Your task to perform on an android device: Go to location settings Image 0: 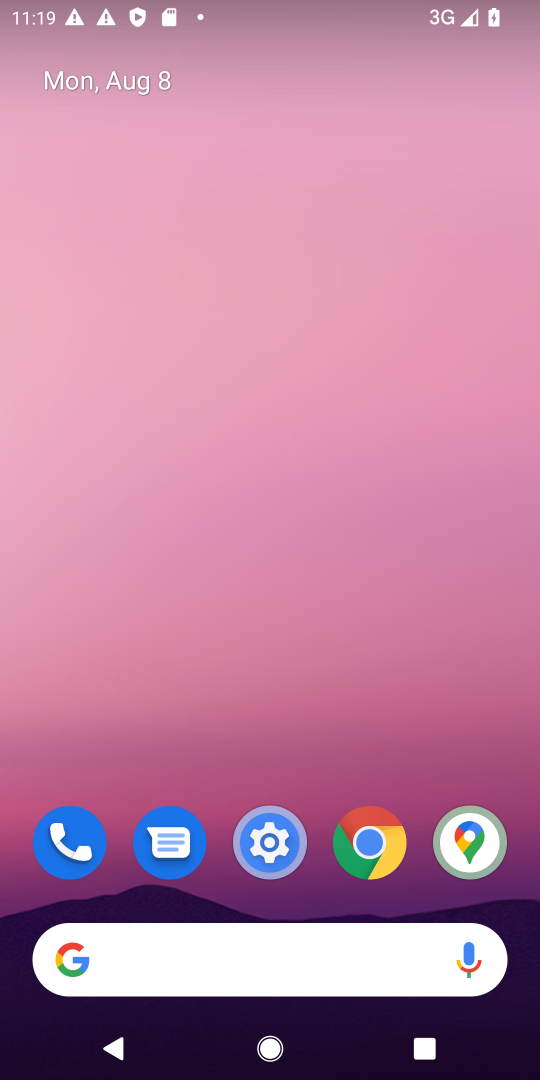
Step 0: click (254, 841)
Your task to perform on an android device: Go to location settings Image 1: 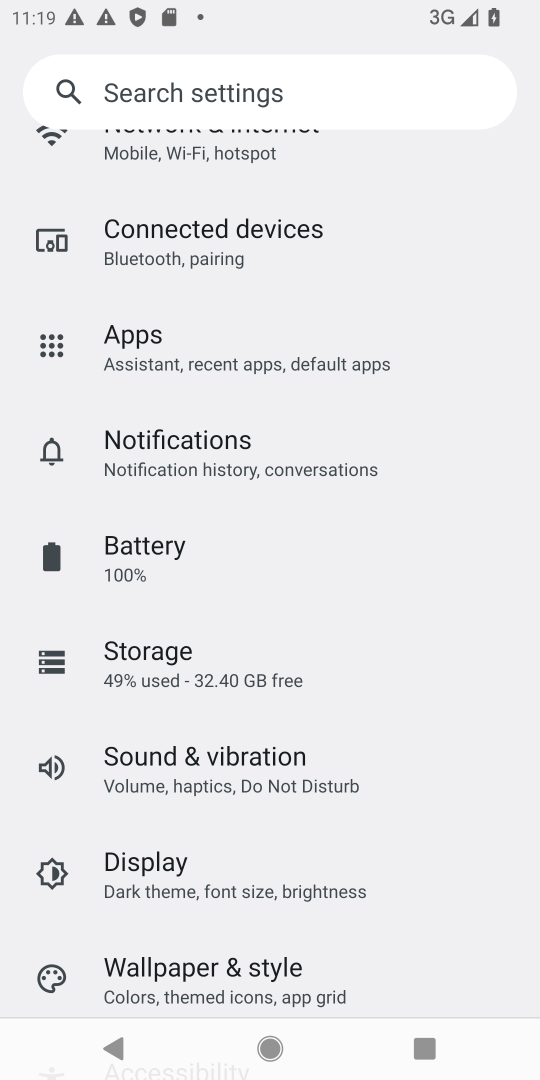
Step 1: drag from (479, 704) to (444, 352)
Your task to perform on an android device: Go to location settings Image 2: 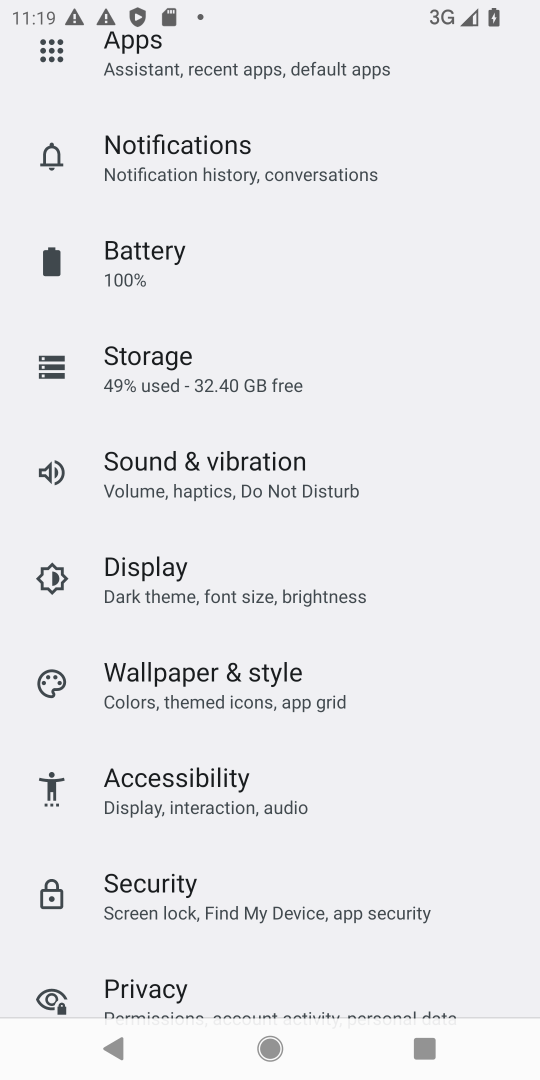
Step 2: drag from (457, 759) to (388, 825)
Your task to perform on an android device: Go to location settings Image 3: 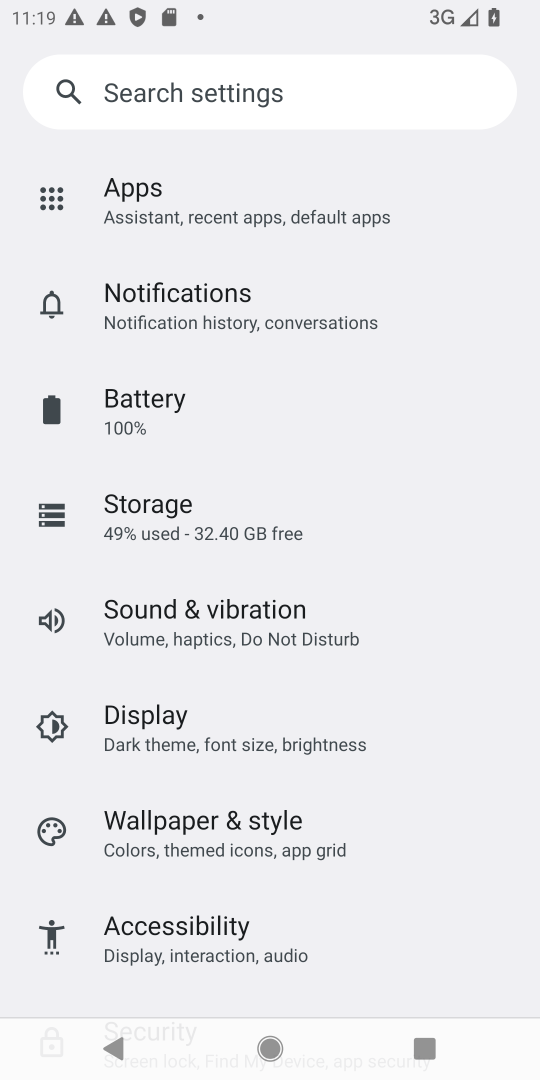
Step 3: drag from (412, 593) to (394, 1034)
Your task to perform on an android device: Go to location settings Image 4: 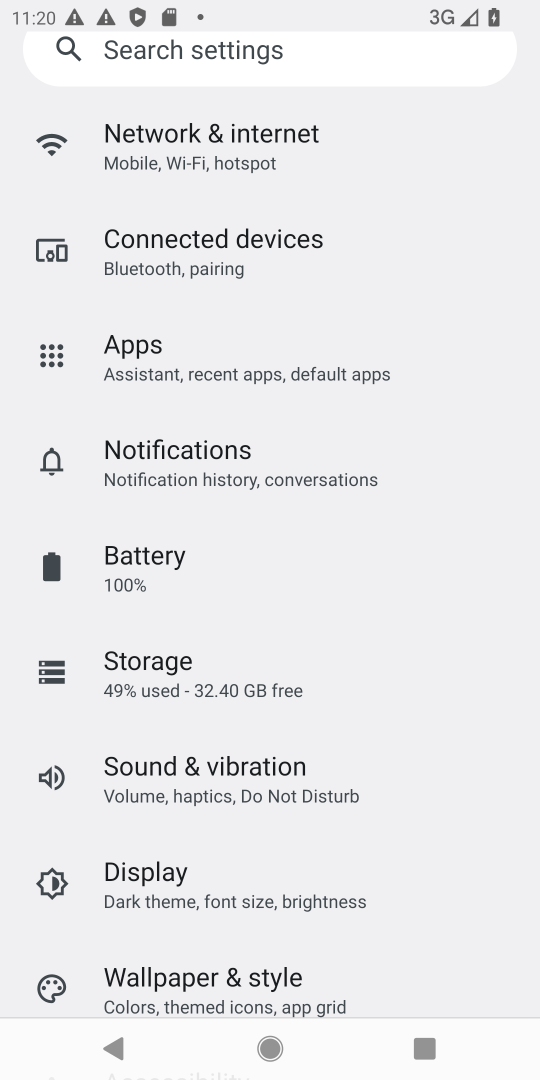
Step 4: click (290, 50)
Your task to perform on an android device: Go to location settings Image 5: 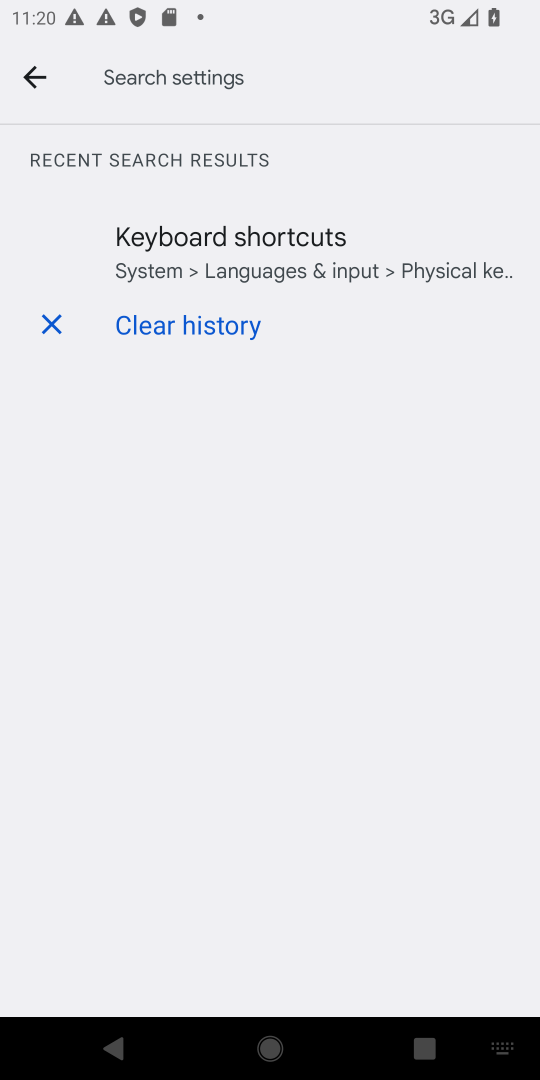
Step 5: type "location"
Your task to perform on an android device: Go to location settings Image 6: 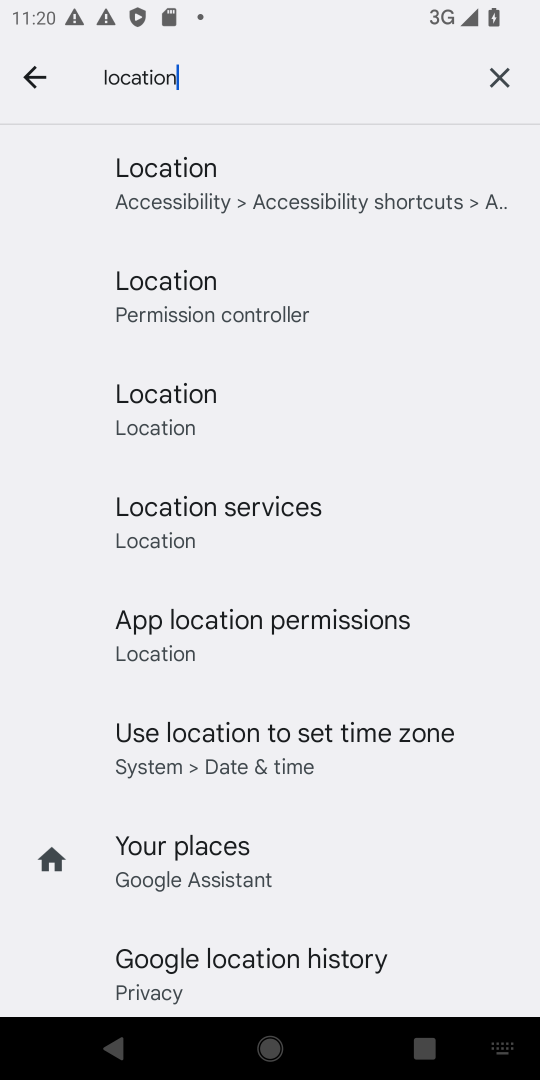
Step 6: click (258, 178)
Your task to perform on an android device: Go to location settings Image 7: 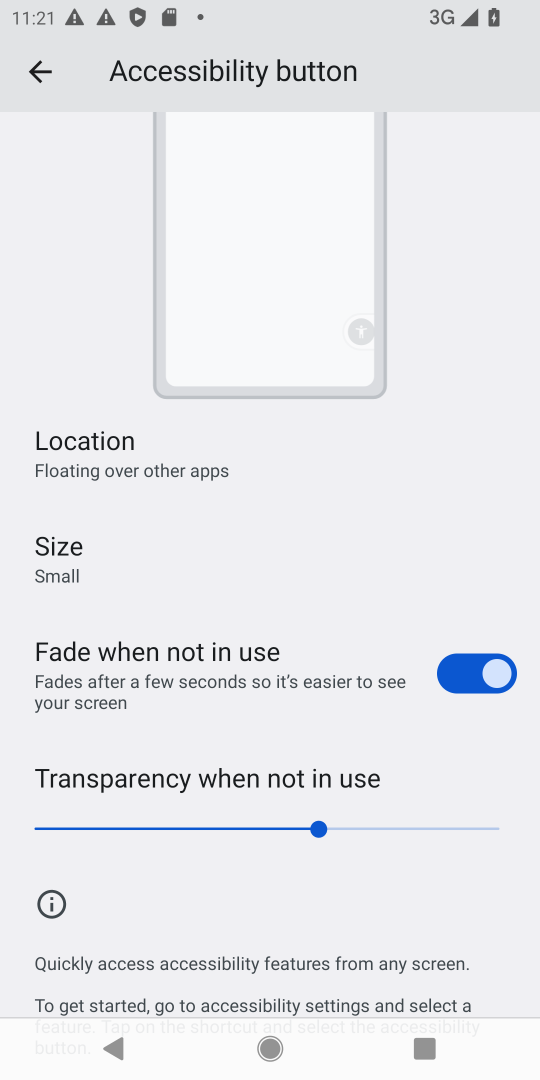
Step 7: task complete